Your task to perform on an android device: change notification settings in the gmail app Image 0: 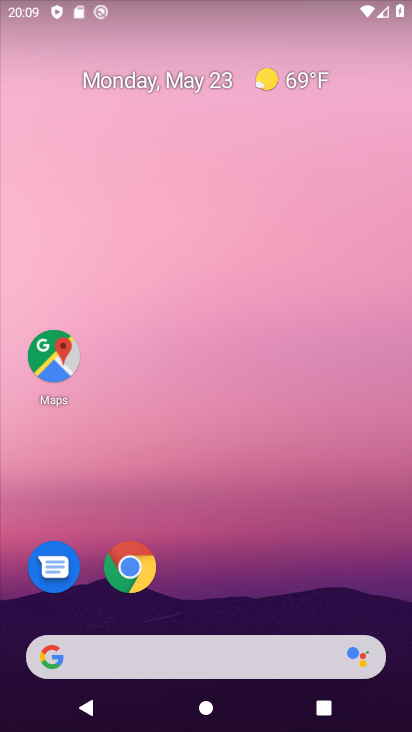
Step 0: drag from (219, 560) to (302, 45)
Your task to perform on an android device: change notification settings in the gmail app Image 1: 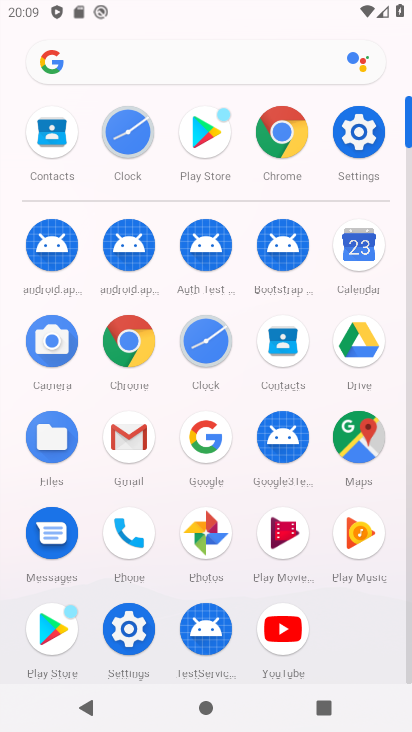
Step 1: click (140, 643)
Your task to perform on an android device: change notification settings in the gmail app Image 2: 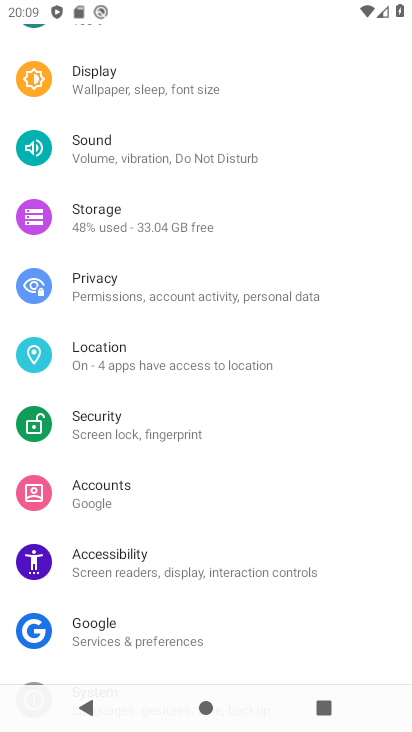
Step 2: drag from (160, 116) to (164, 434)
Your task to perform on an android device: change notification settings in the gmail app Image 3: 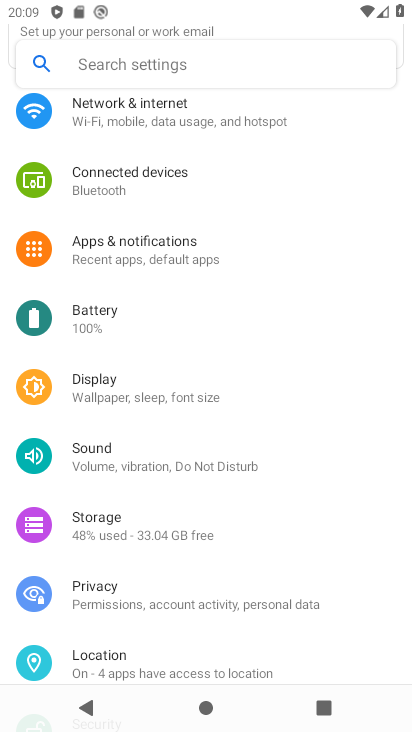
Step 3: click (156, 242)
Your task to perform on an android device: change notification settings in the gmail app Image 4: 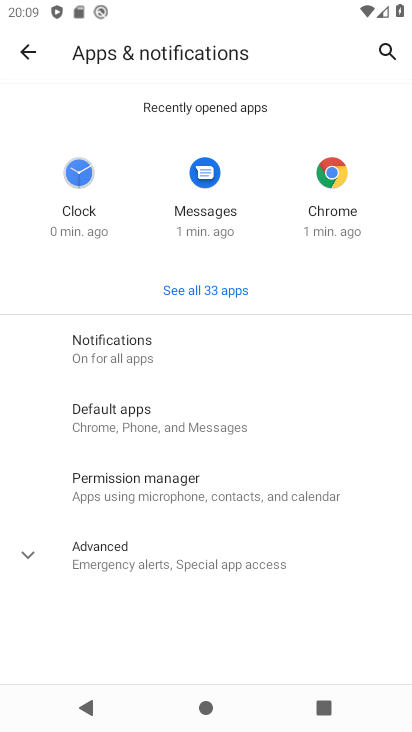
Step 4: click (158, 357)
Your task to perform on an android device: change notification settings in the gmail app Image 5: 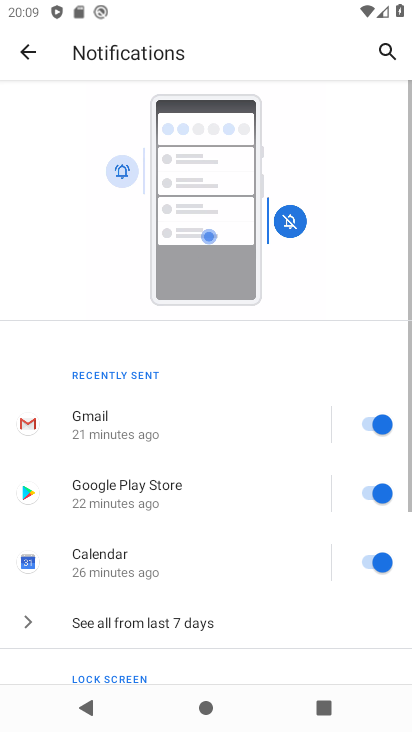
Step 5: task complete